Your task to perform on an android device: Open eBay Image 0: 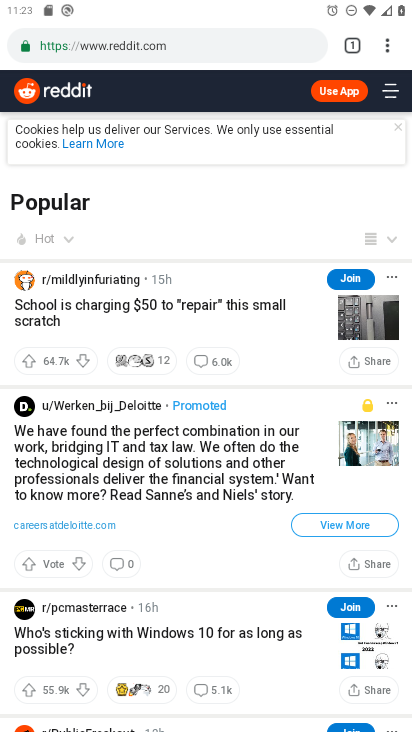
Step 0: press home button
Your task to perform on an android device: Open eBay Image 1: 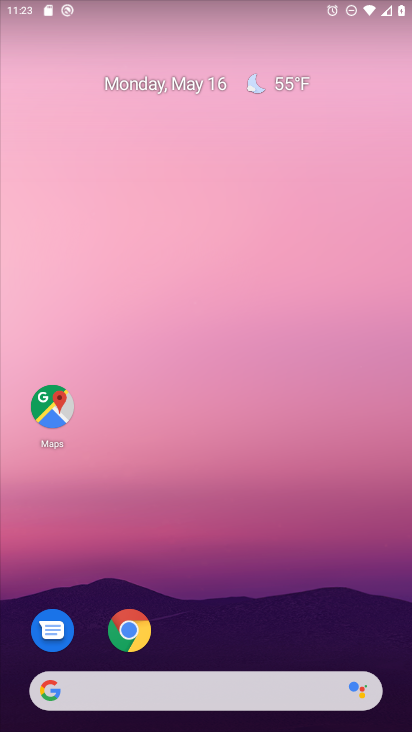
Step 1: click (142, 631)
Your task to perform on an android device: Open eBay Image 2: 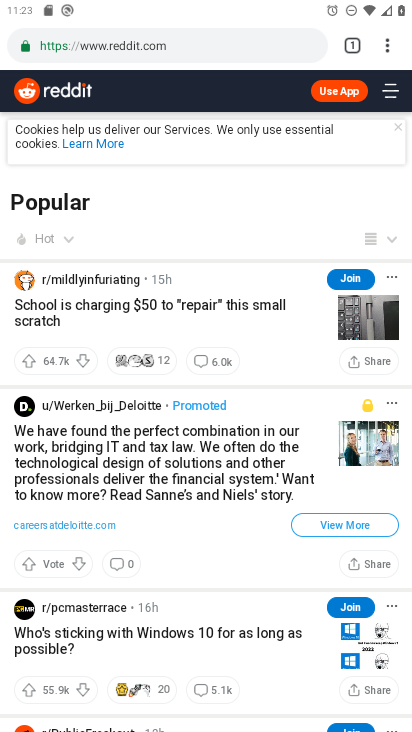
Step 2: click (351, 48)
Your task to perform on an android device: Open eBay Image 3: 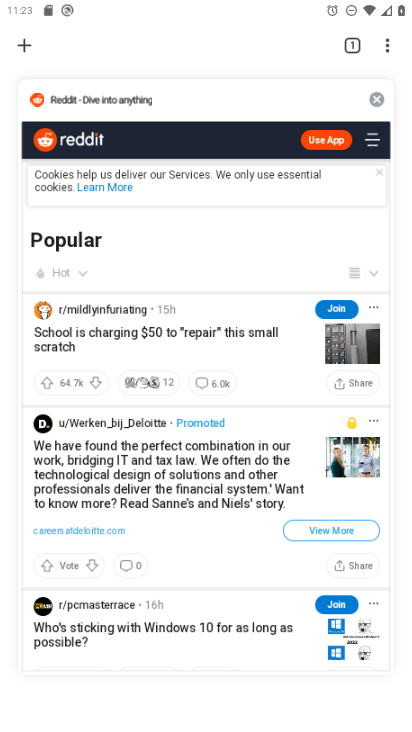
Step 3: click (21, 43)
Your task to perform on an android device: Open eBay Image 4: 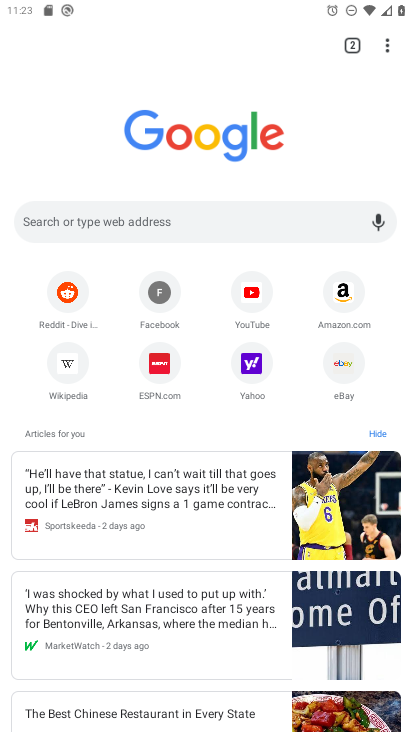
Step 4: click (129, 215)
Your task to perform on an android device: Open eBay Image 5: 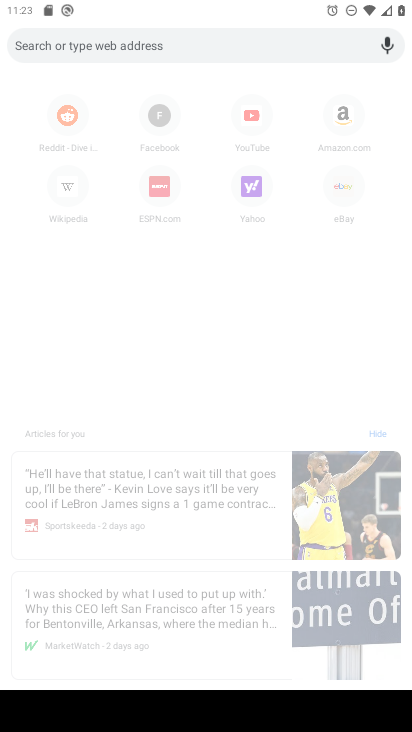
Step 5: type " eBay"
Your task to perform on an android device: Open eBay Image 6: 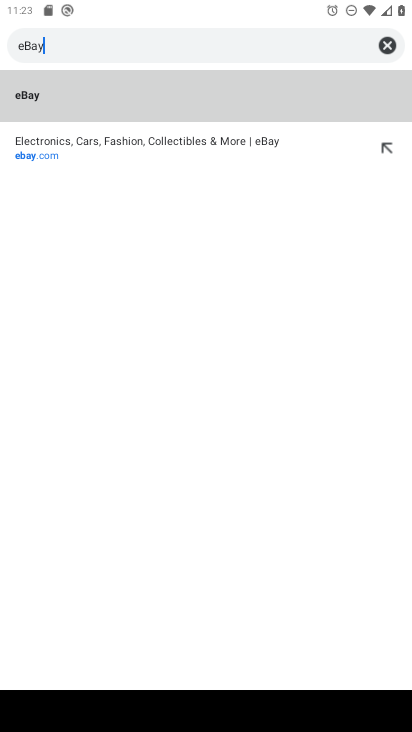
Step 6: click (162, 97)
Your task to perform on an android device: Open eBay Image 7: 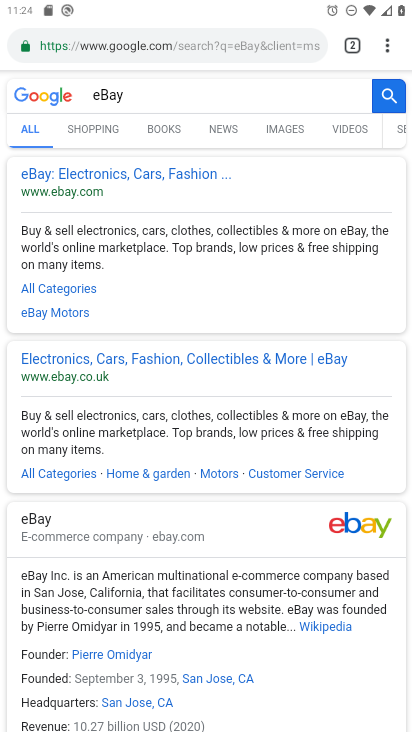
Step 7: click (93, 178)
Your task to perform on an android device: Open eBay Image 8: 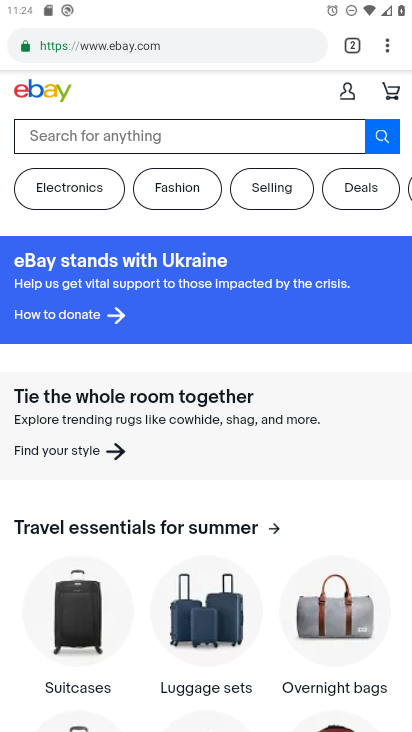
Step 8: task complete